Your task to perform on an android device: toggle notification dots Image 0: 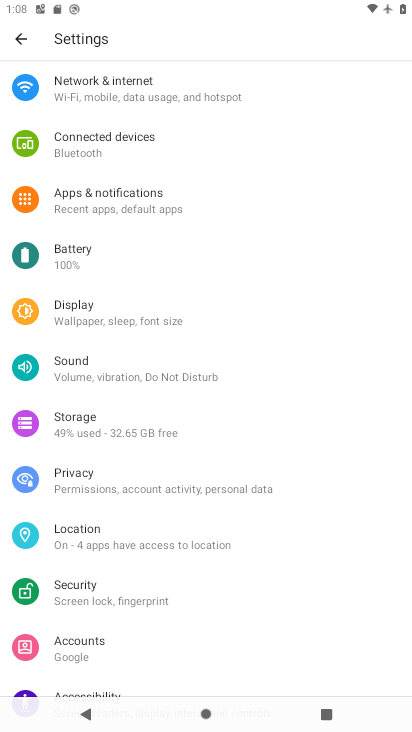
Step 0: click (148, 215)
Your task to perform on an android device: toggle notification dots Image 1: 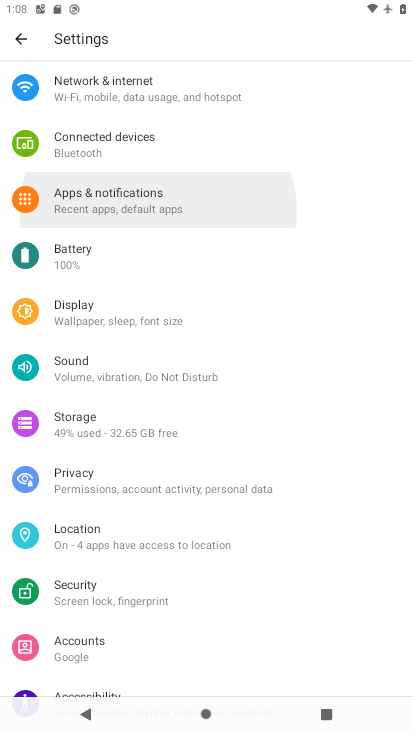
Step 1: click (148, 215)
Your task to perform on an android device: toggle notification dots Image 2: 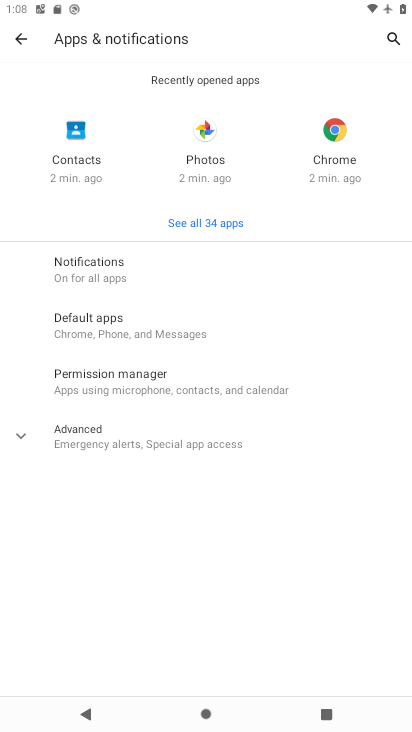
Step 2: task complete